Your task to perform on an android device: Go to sound settings Image 0: 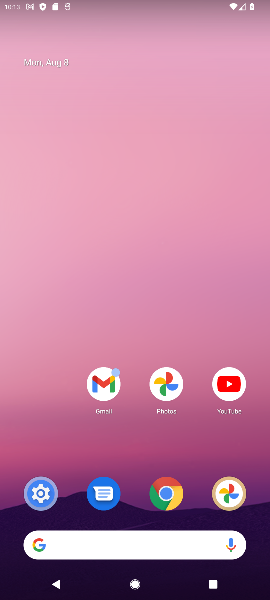
Step 0: press home button
Your task to perform on an android device: Go to sound settings Image 1: 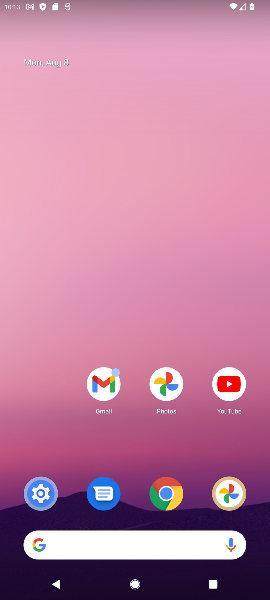
Step 1: drag from (103, 528) to (78, 80)
Your task to perform on an android device: Go to sound settings Image 2: 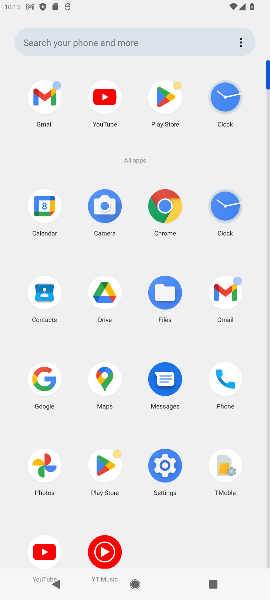
Step 2: click (166, 464)
Your task to perform on an android device: Go to sound settings Image 3: 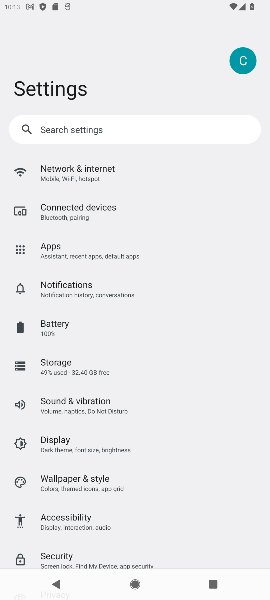
Step 3: drag from (105, 421) to (75, 184)
Your task to perform on an android device: Go to sound settings Image 4: 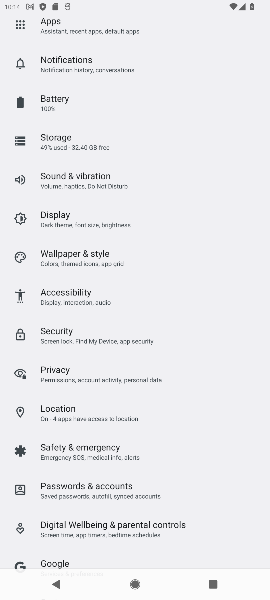
Step 4: drag from (122, 238) to (86, 552)
Your task to perform on an android device: Go to sound settings Image 5: 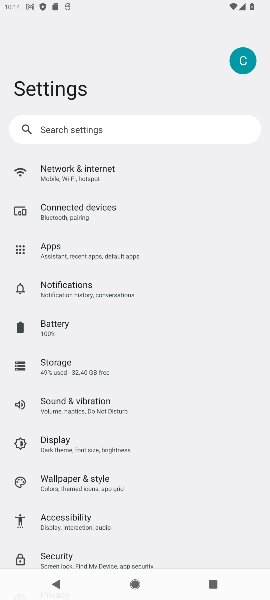
Step 5: click (89, 423)
Your task to perform on an android device: Go to sound settings Image 6: 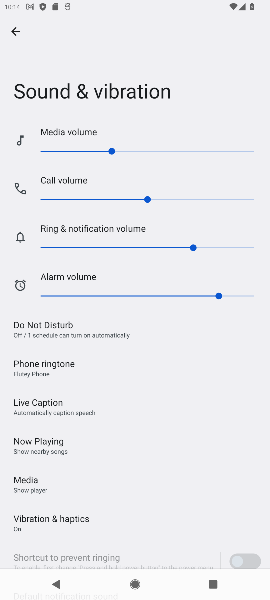
Step 6: task complete